Your task to perform on an android device: Open wifi settings Image 0: 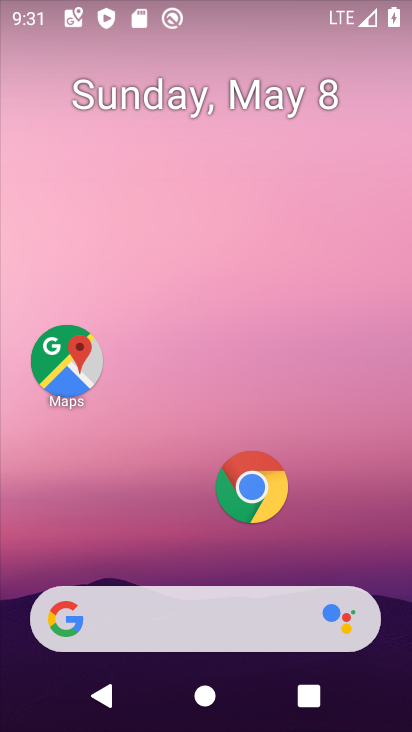
Step 0: drag from (187, 503) to (238, 47)
Your task to perform on an android device: Open wifi settings Image 1: 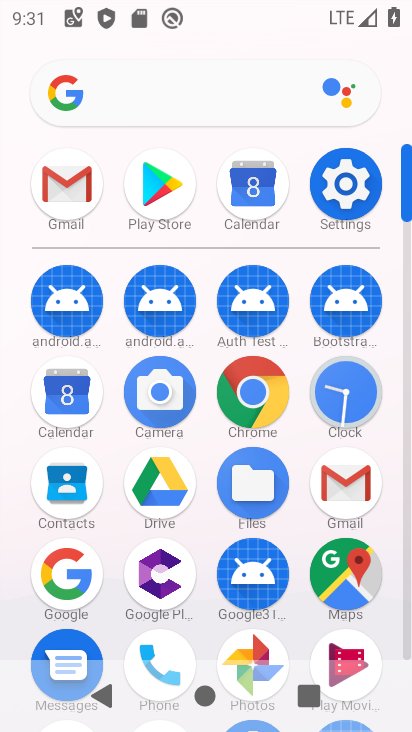
Step 1: click (353, 183)
Your task to perform on an android device: Open wifi settings Image 2: 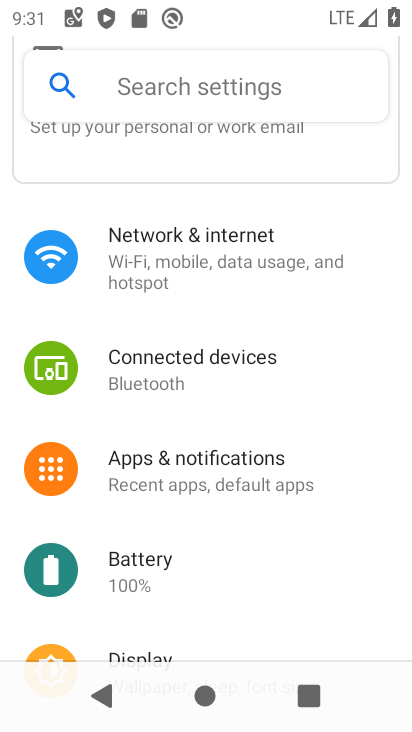
Step 2: click (238, 249)
Your task to perform on an android device: Open wifi settings Image 3: 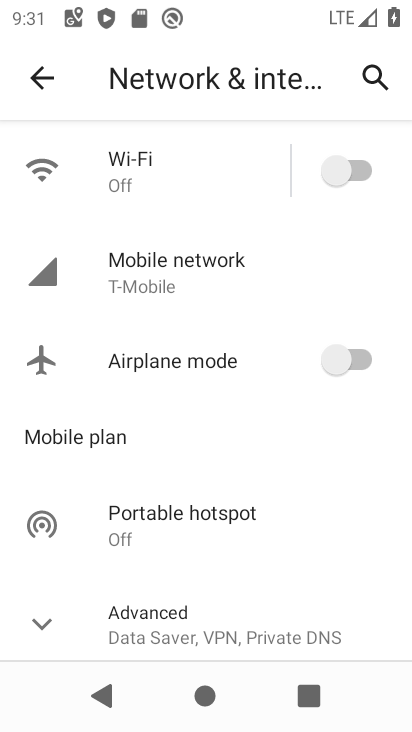
Step 3: click (155, 169)
Your task to perform on an android device: Open wifi settings Image 4: 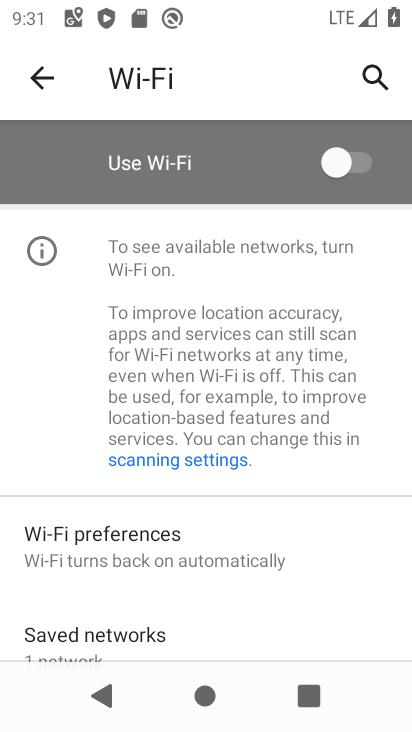
Step 4: task complete